Your task to perform on an android device: Show me popular games on the Play Store Image 0: 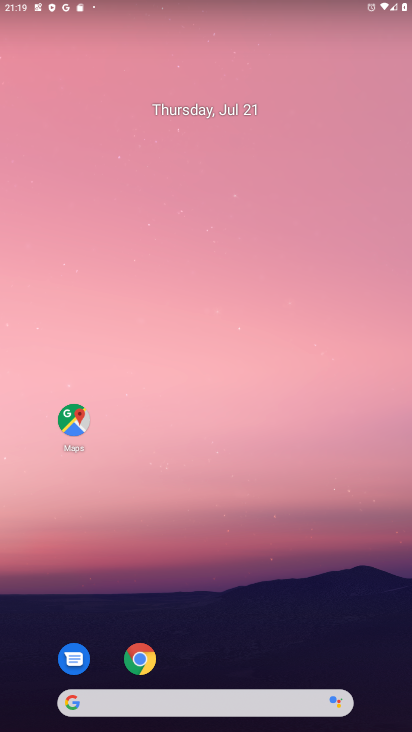
Step 0: drag from (241, 597) to (309, 160)
Your task to perform on an android device: Show me popular games on the Play Store Image 1: 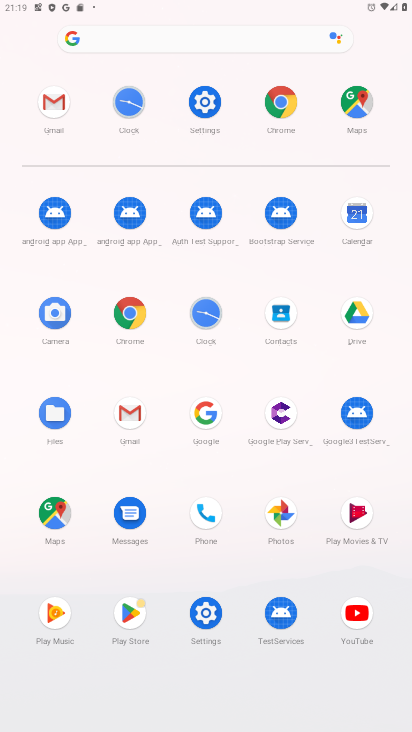
Step 1: click (121, 610)
Your task to perform on an android device: Show me popular games on the Play Store Image 2: 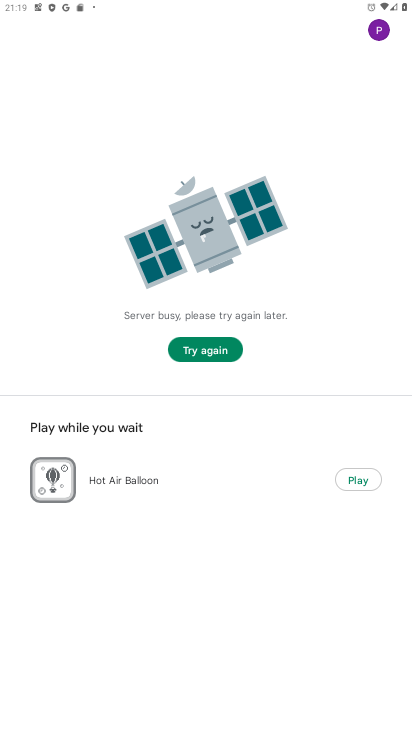
Step 2: click (181, 348)
Your task to perform on an android device: Show me popular games on the Play Store Image 3: 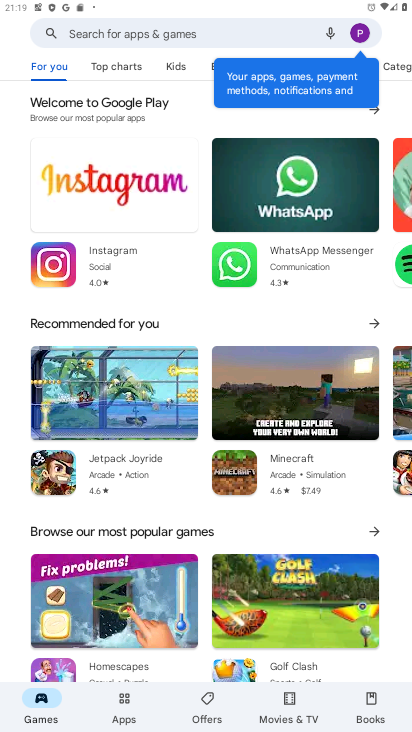
Step 3: click (157, 33)
Your task to perform on an android device: Show me popular games on the Play Store Image 4: 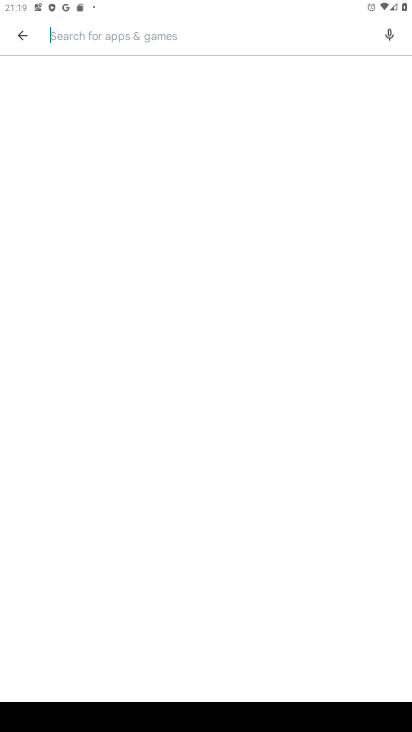
Step 4: type " popular games"
Your task to perform on an android device: Show me popular games on the Play Store Image 5: 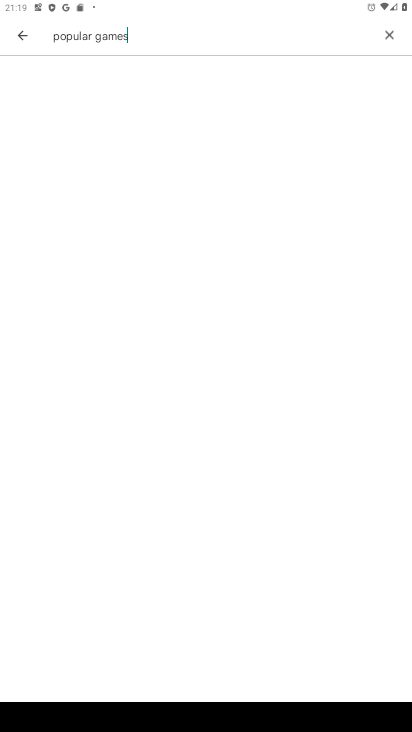
Step 5: type ""
Your task to perform on an android device: Show me popular games on the Play Store Image 6: 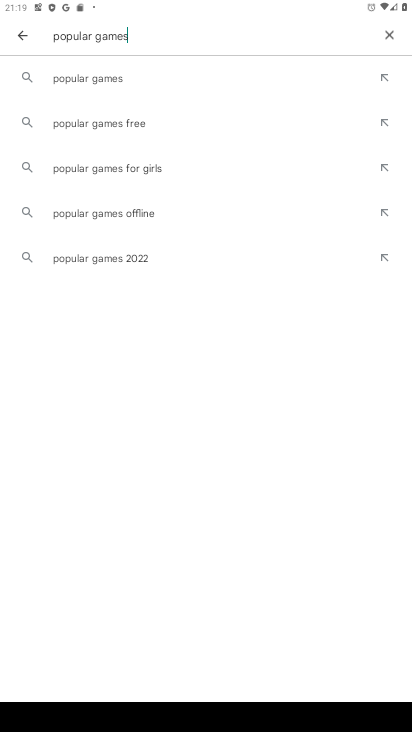
Step 6: click (94, 77)
Your task to perform on an android device: Show me popular games on the Play Store Image 7: 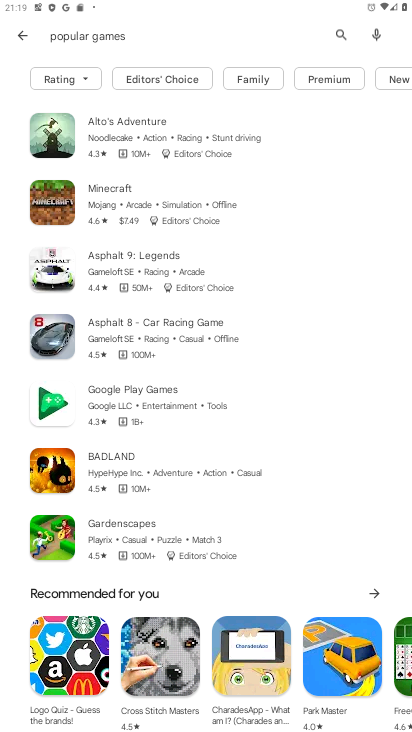
Step 7: task complete